Your task to perform on an android device: What's the weather today? Image 0: 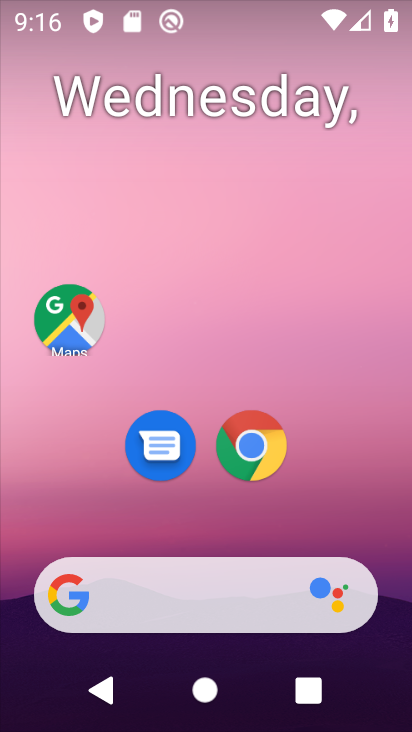
Step 0: click (61, 594)
Your task to perform on an android device: What's the weather today? Image 1: 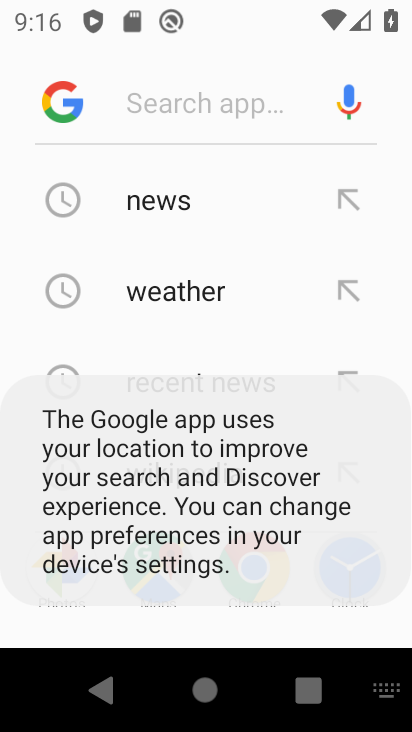
Step 1: click (90, 99)
Your task to perform on an android device: What's the weather today? Image 2: 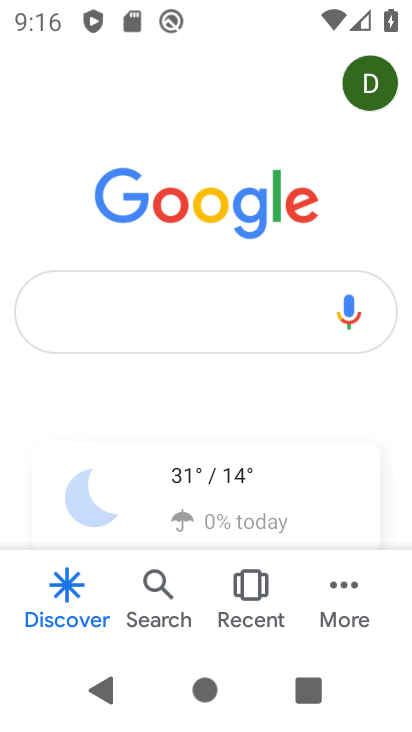
Step 2: click (206, 494)
Your task to perform on an android device: What's the weather today? Image 3: 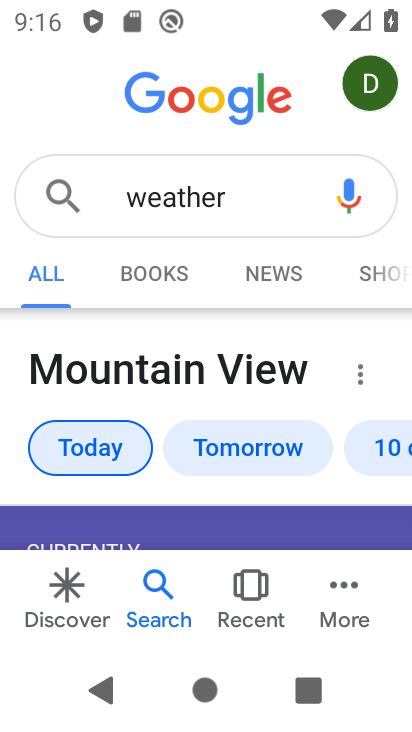
Step 3: task complete